Your task to perform on an android device: Open Google Maps Image 0: 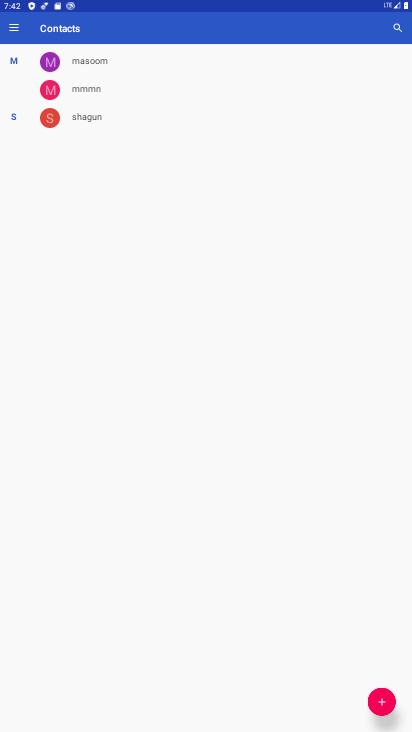
Step 0: press home button
Your task to perform on an android device: Open Google Maps Image 1: 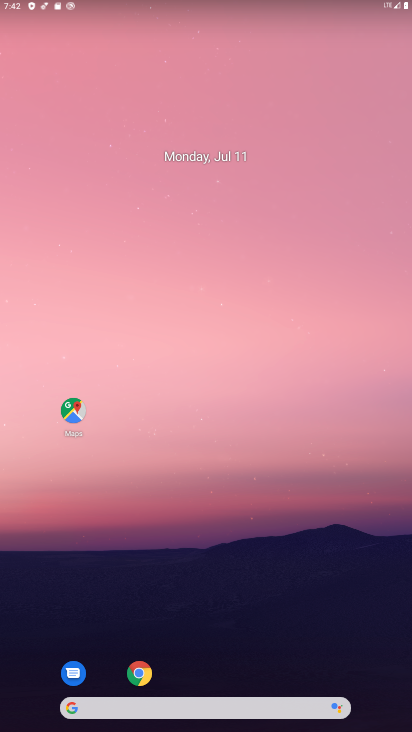
Step 1: drag from (242, 700) to (179, 265)
Your task to perform on an android device: Open Google Maps Image 2: 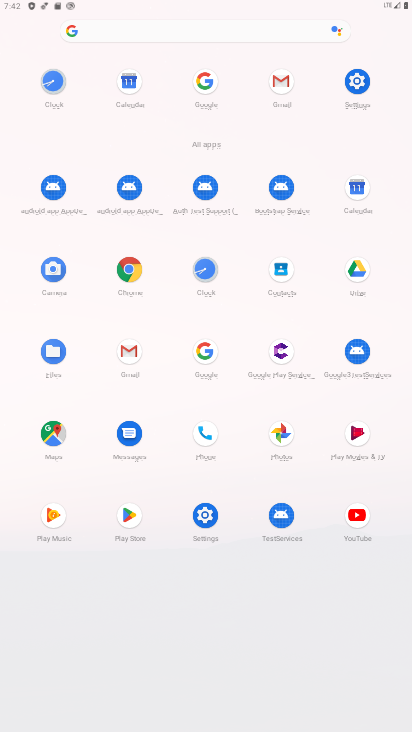
Step 2: click (49, 429)
Your task to perform on an android device: Open Google Maps Image 3: 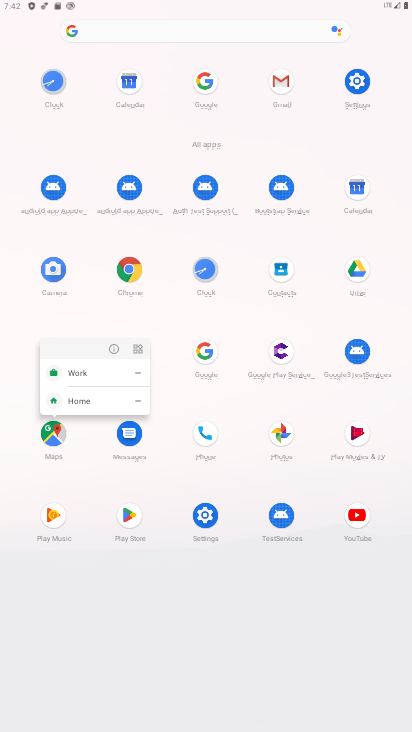
Step 3: click (49, 429)
Your task to perform on an android device: Open Google Maps Image 4: 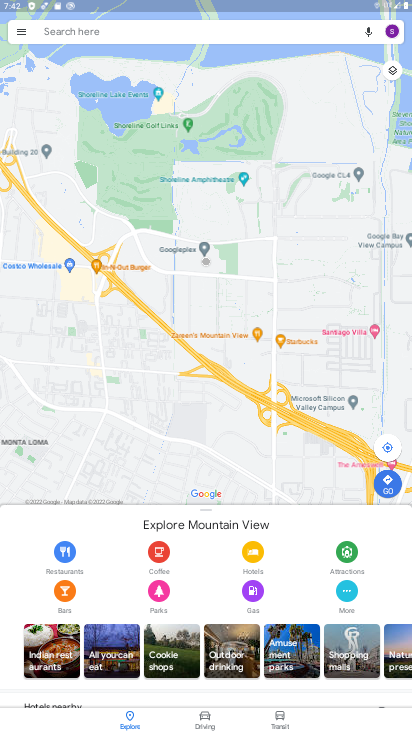
Step 4: task complete